Your task to perform on an android device: open sync settings in chrome Image 0: 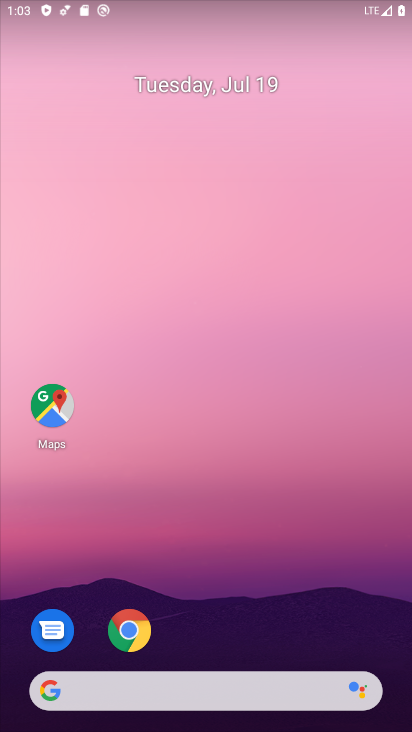
Step 0: drag from (258, 629) to (275, 179)
Your task to perform on an android device: open sync settings in chrome Image 1: 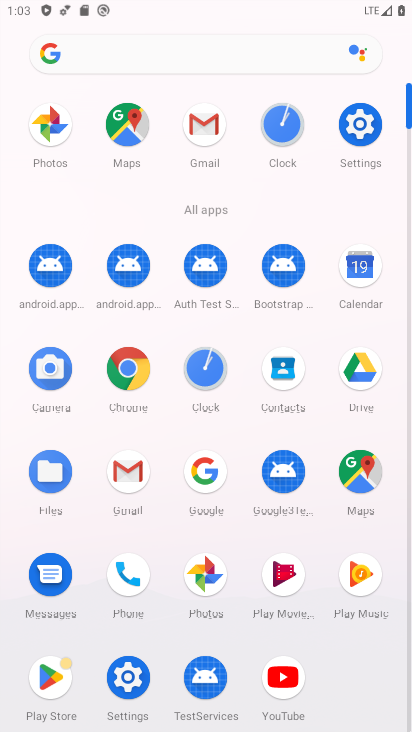
Step 1: click (123, 377)
Your task to perform on an android device: open sync settings in chrome Image 2: 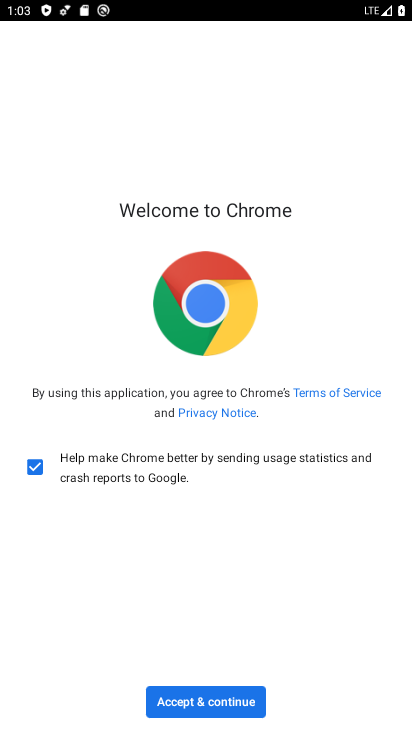
Step 2: click (256, 703)
Your task to perform on an android device: open sync settings in chrome Image 3: 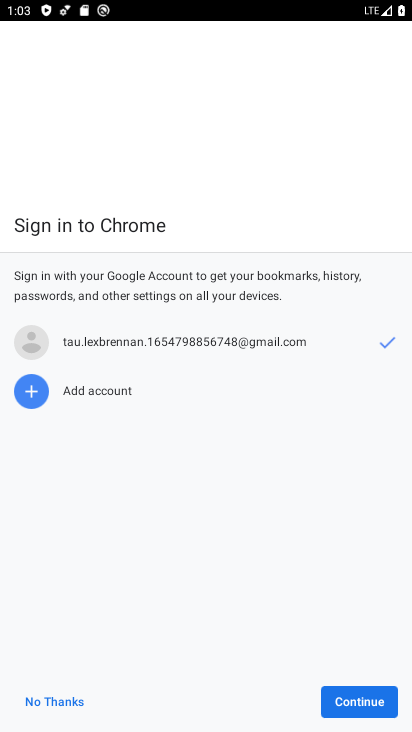
Step 3: click (361, 702)
Your task to perform on an android device: open sync settings in chrome Image 4: 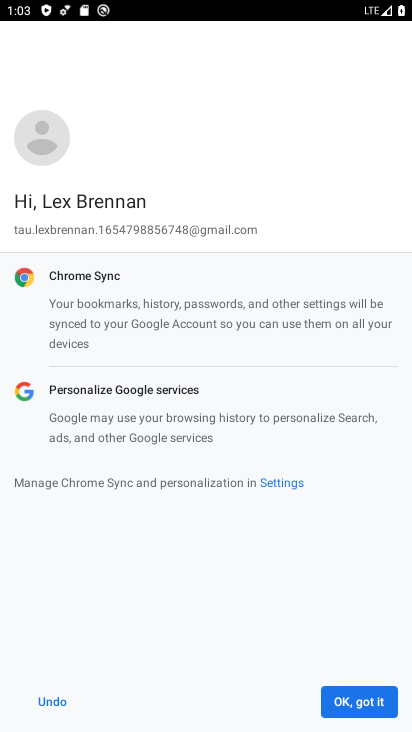
Step 4: click (361, 702)
Your task to perform on an android device: open sync settings in chrome Image 5: 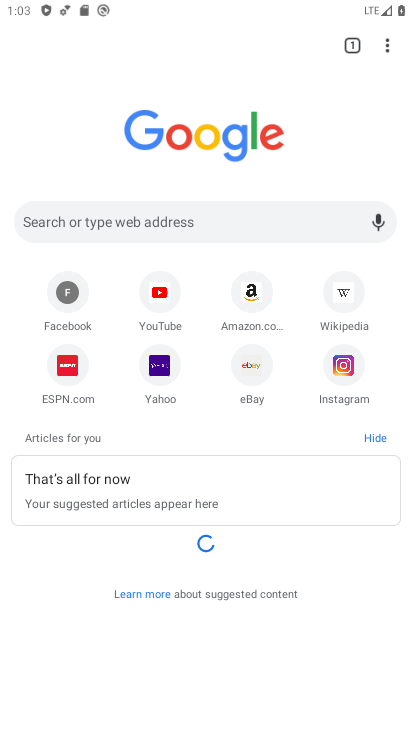
Step 5: drag from (384, 44) to (255, 389)
Your task to perform on an android device: open sync settings in chrome Image 6: 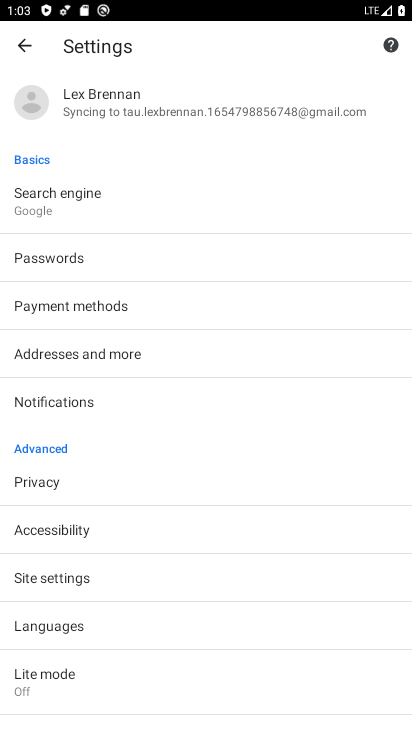
Step 6: click (205, 125)
Your task to perform on an android device: open sync settings in chrome Image 7: 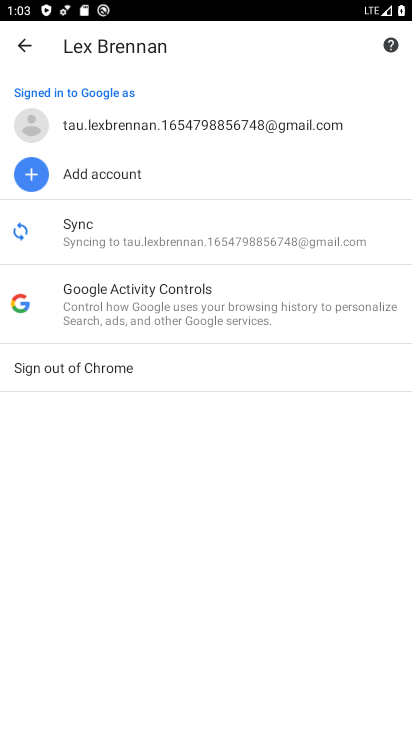
Step 7: click (139, 241)
Your task to perform on an android device: open sync settings in chrome Image 8: 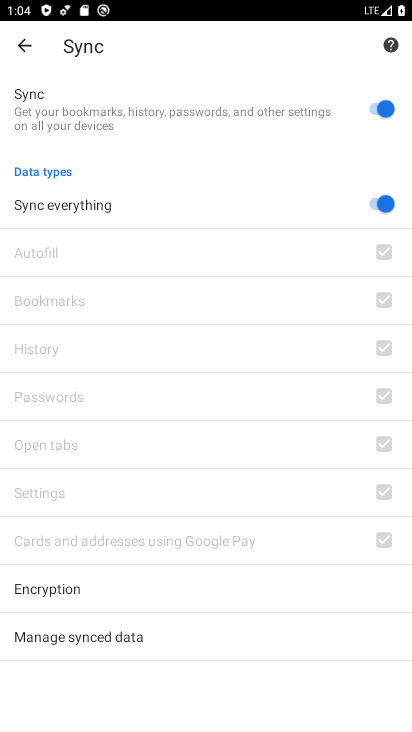
Step 8: task complete